Your task to perform on an android device: Search for flights from Helsinki to Tokyo Image 0: 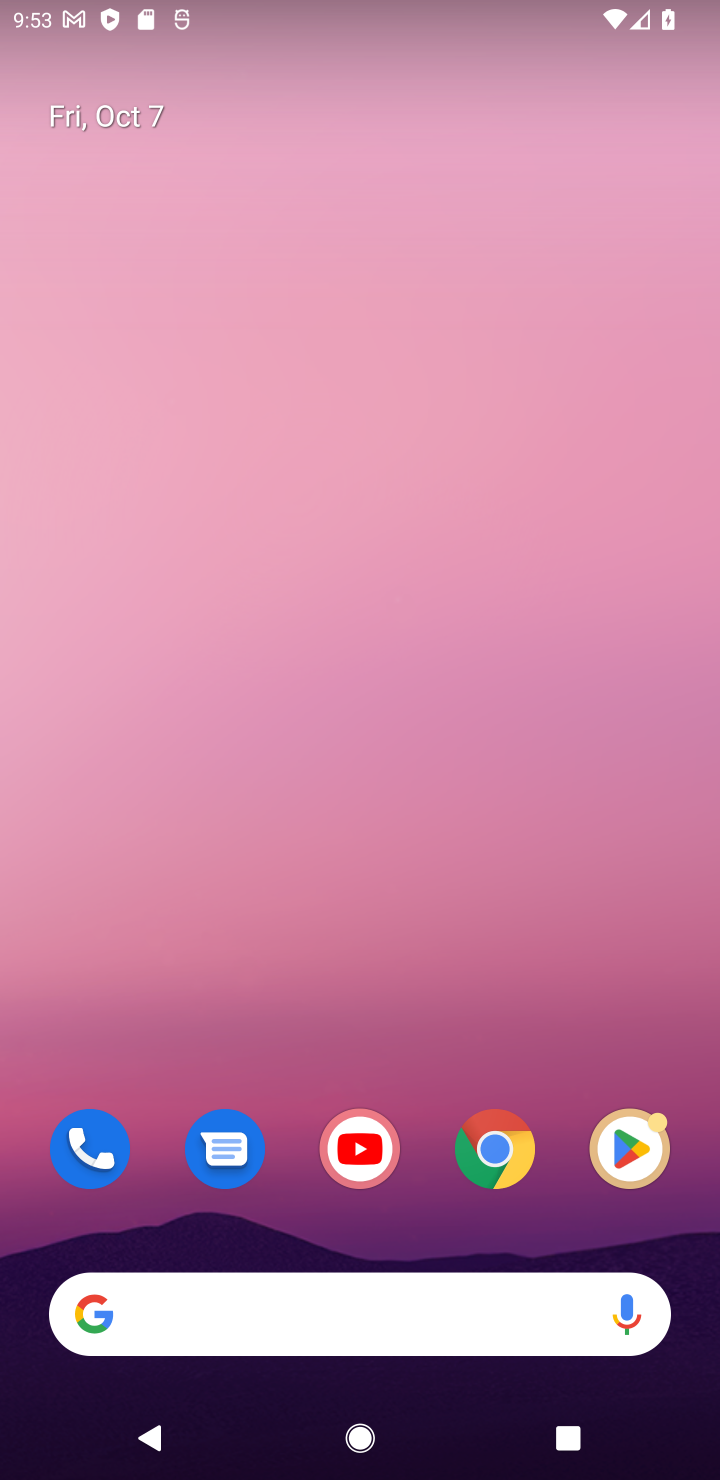
Step 0: click (373, 1308)
Your task to perform on an android device: Search for flights from Helsinki to Tokyo Image 1: 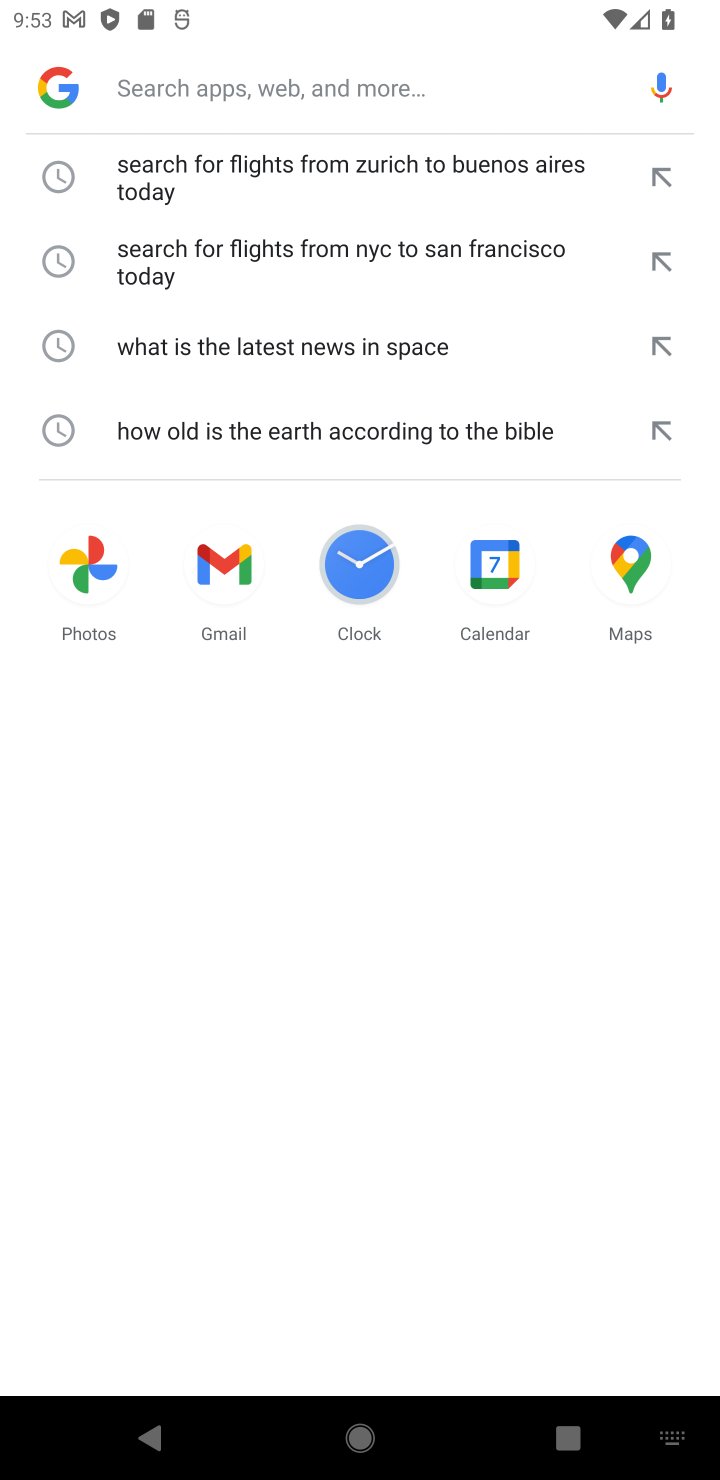
Step 1: type "Search for flights from Helsinki to Tokyo"
Your task to perform on an android device: Search for flights from Helsinki to Tokyo Image 2: 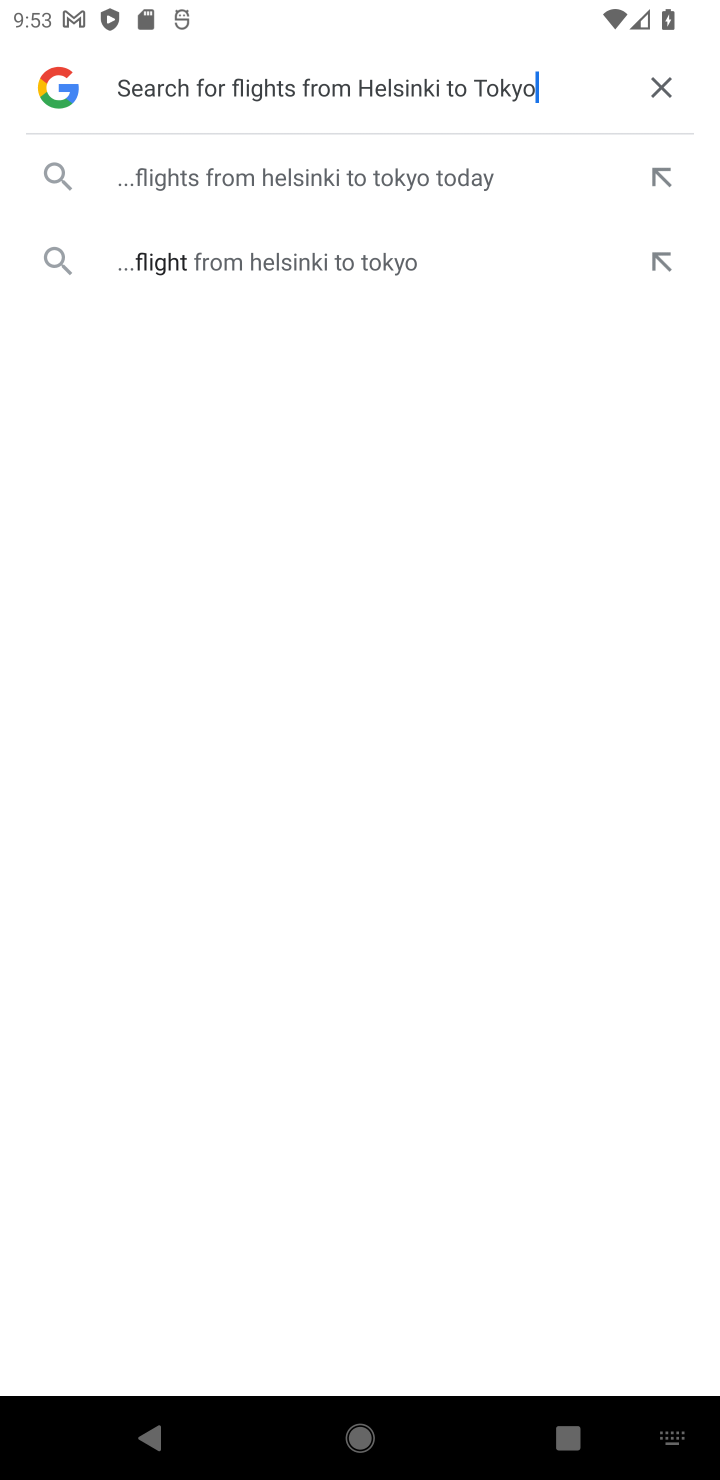
Step 2: click (368, 192)
Your task to perform on an android device: Search for flights from Helsinki to Tokyo Image 3: 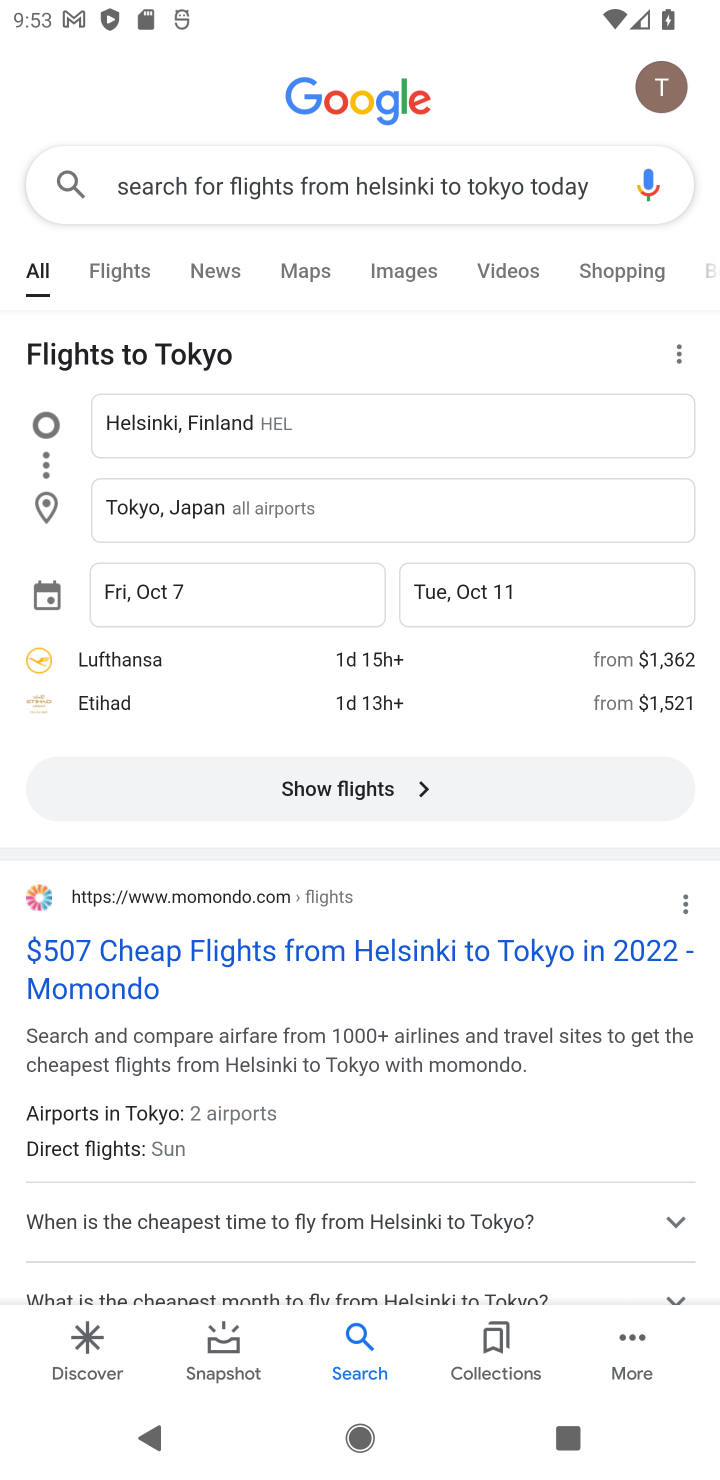
Step 3: task complete